Your task to perform on an android device: Go to Android settings Image 0: 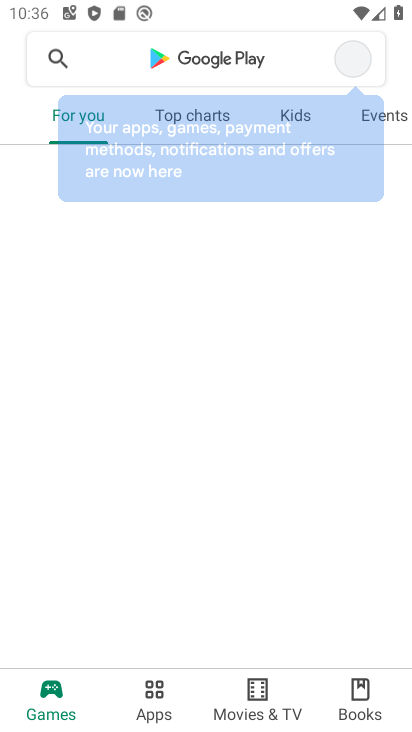
Step 0: press home button
Your task to perform on an android device: Go to Android settings Image 1: 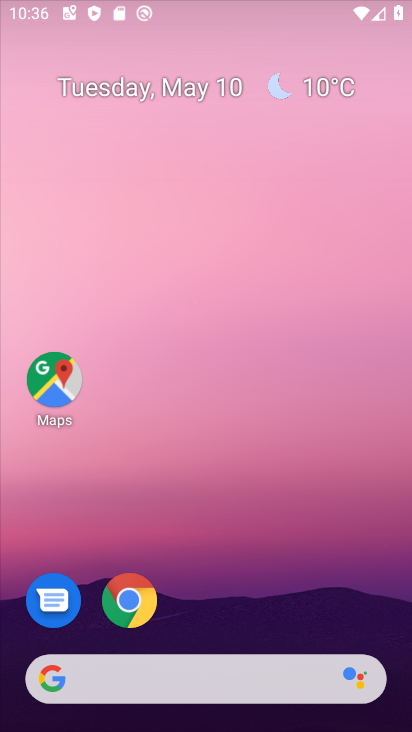
Step 1: drag from (291, 587) to (236, 24)
Your task to perform on an android device: Go to Android settings Image 2: 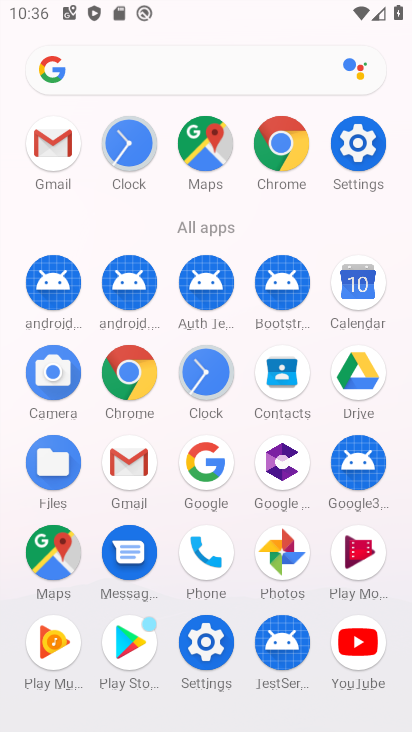
Step 2: click (355, 138)
Your task to perform on an android device: Go to Android settings Image 3: 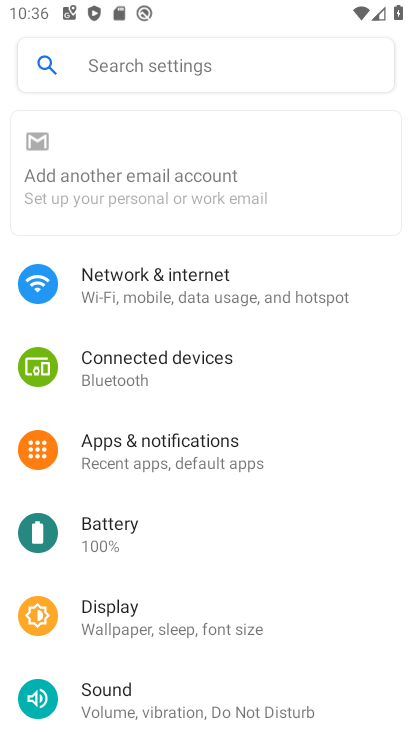
Step 3: drag from (239, 619) to (228, 87)
Your task to perform on an android device: Go to Android settings Image 4: 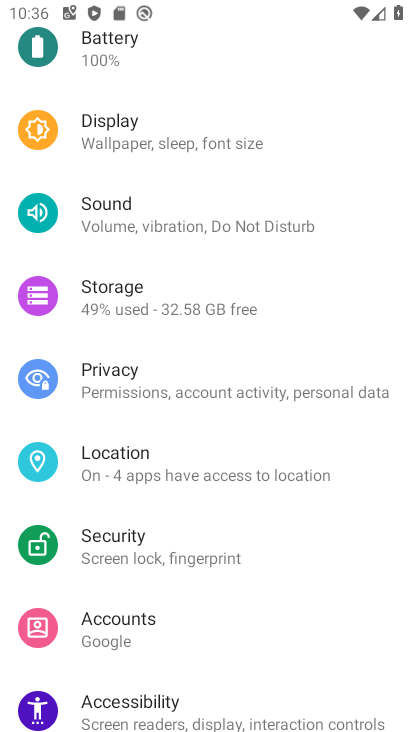
Step 4: drag from (210, 649) to (263, 92)
Your task to perform on an android device: Go to Android settings Image 5: 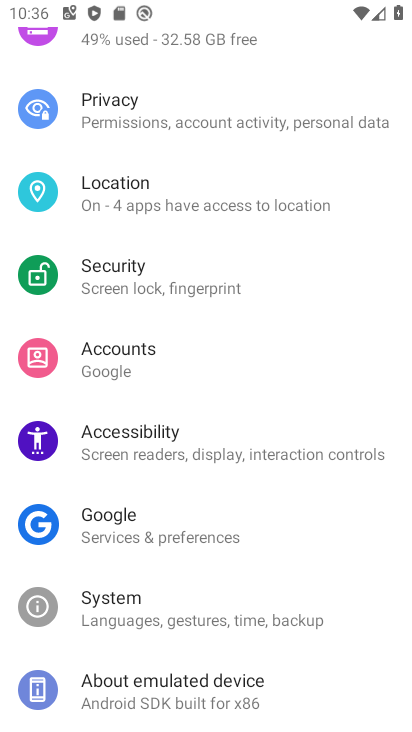
Step 5: click (200, 679)
Your task to perform on an android device: Go to Android settings Image 6: 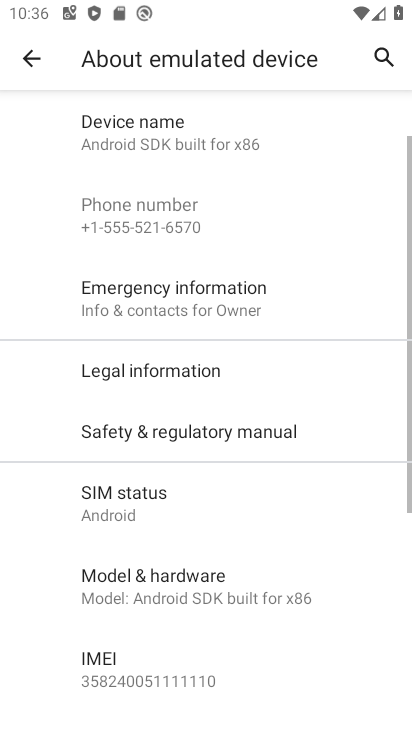
Step 6: drag from (180, 644) to (225, 299)
Your task to perform on an android device: Go to Android settings Image 7: 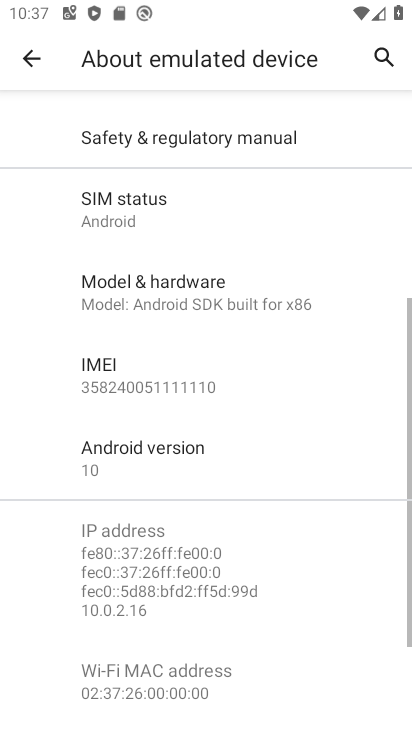
Step 7: click (154, 442)
Your task to perform on an android device: Go to Android settings Image 8: 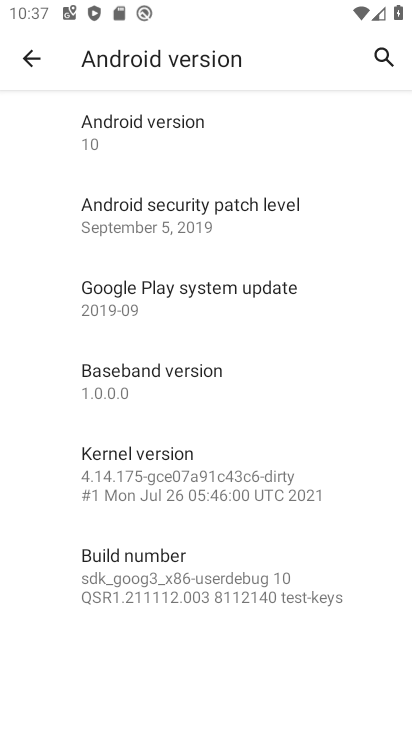
Step 8: task complete